Your task to perform on an android device: What is the recent news? Image 0: 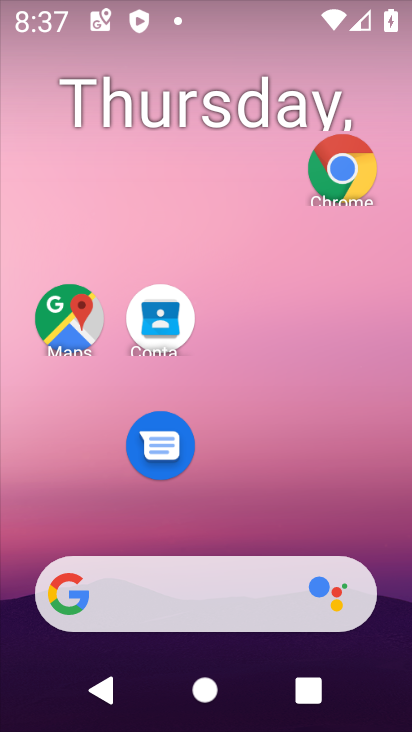
Step 0: drag from (253, 640) to (309, 151)
Your task to perform on an android device: What is the recent news? Image 1: 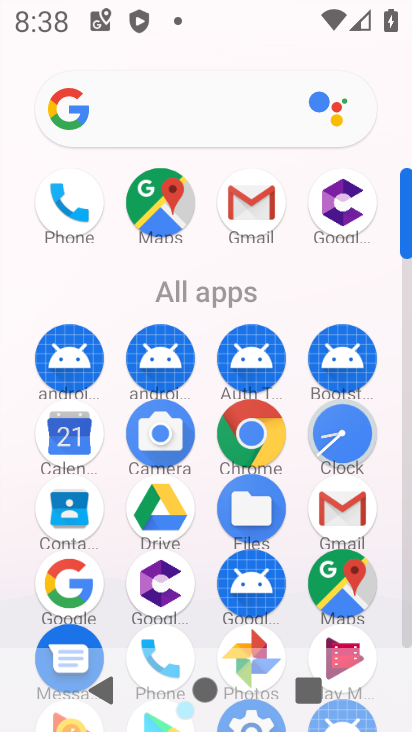
Step 1: click (127, 136)
Your task to perform on an android device: What is the recent news? Image 2: 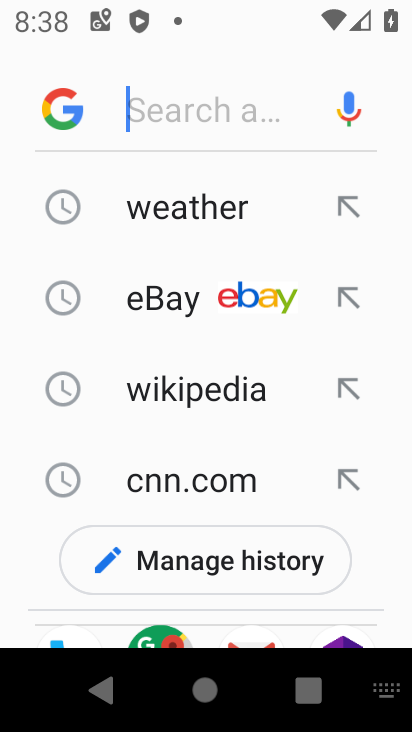
Step 2: click (387, 687)
Your task to perform on an android device: What is the recent news? Image 3: 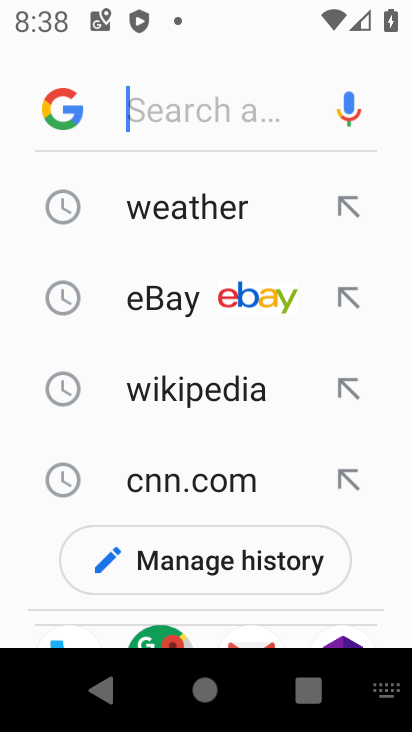
Step 3: click (390, 692)
Your task to perform on an android device: What is the recent news? Image 4: 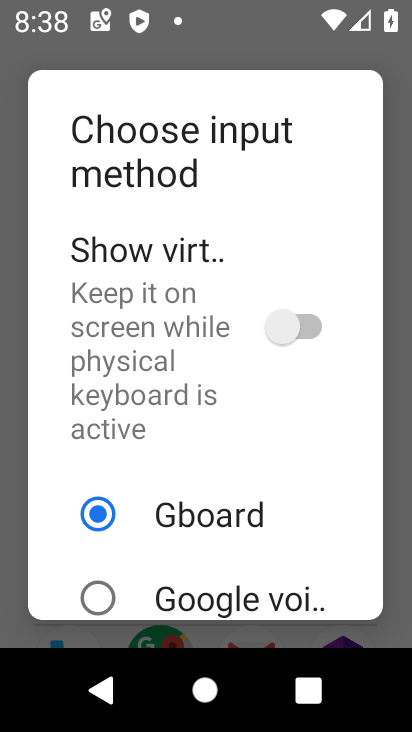
Step 4: click (304, 322)
Your task to perform on an android device: What is the recent news? Image 5: 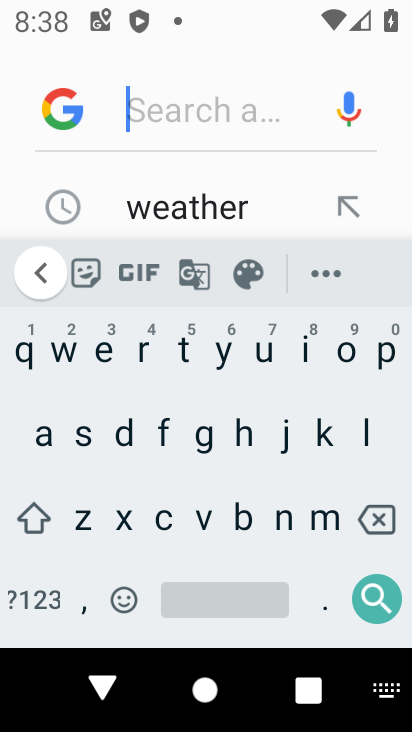
Step 5: click (135, 355)
Your task to perform on an android device: What is the recent news? Image 6: 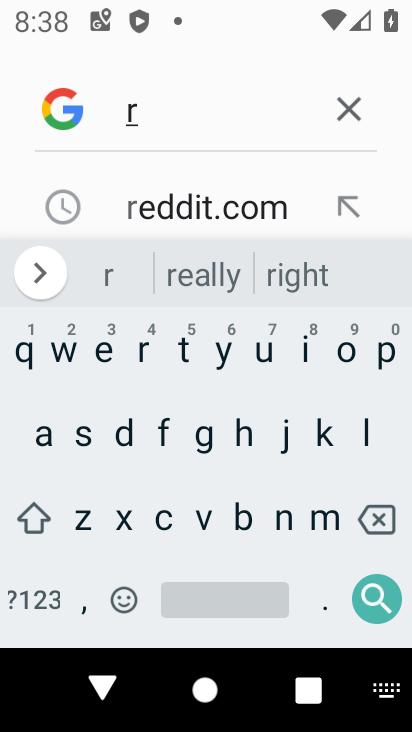
Step 6: click (103, 360)
Your task to perform on an android device: What is the recent news? Image 7: 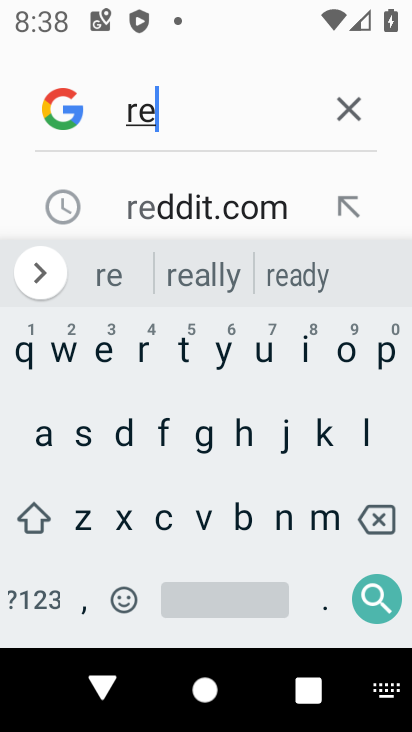
Step 7: click (158, 521)
Your task to perform on an android device: What is the recent news? Image 8: 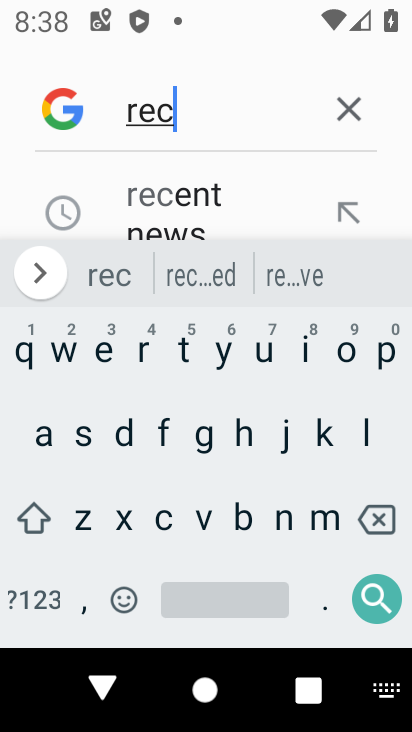
Step 8: click (217, 216)
Your task to perform on an android device: What is the recent news? Image 9: 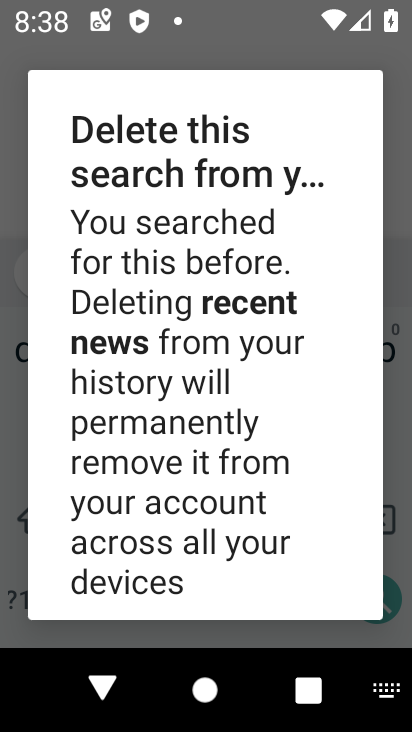
Step 9: press back button
Your task to perform on an android device: What is the recent news? Image 10: 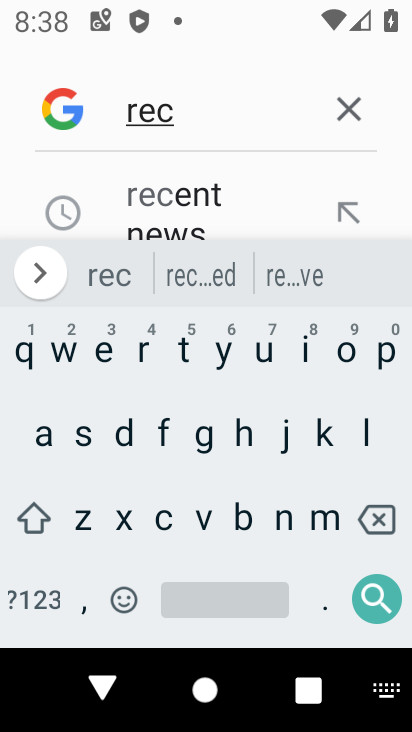
Step 10: click (161, 209)
Your task to perform on an android device: What is the recent news? Image 11: 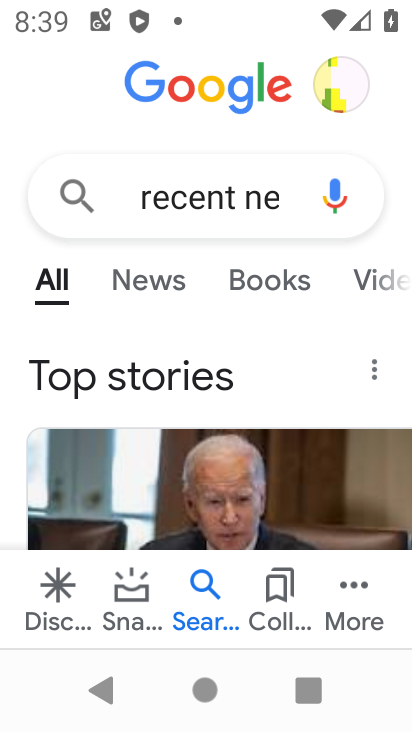
Step 11: task complete